Your task to perform on an android device: Clear the cart on ebay. Search for "dell xps" on ebay, select the first entry, add it to the cart, then select checkout. Image 0: 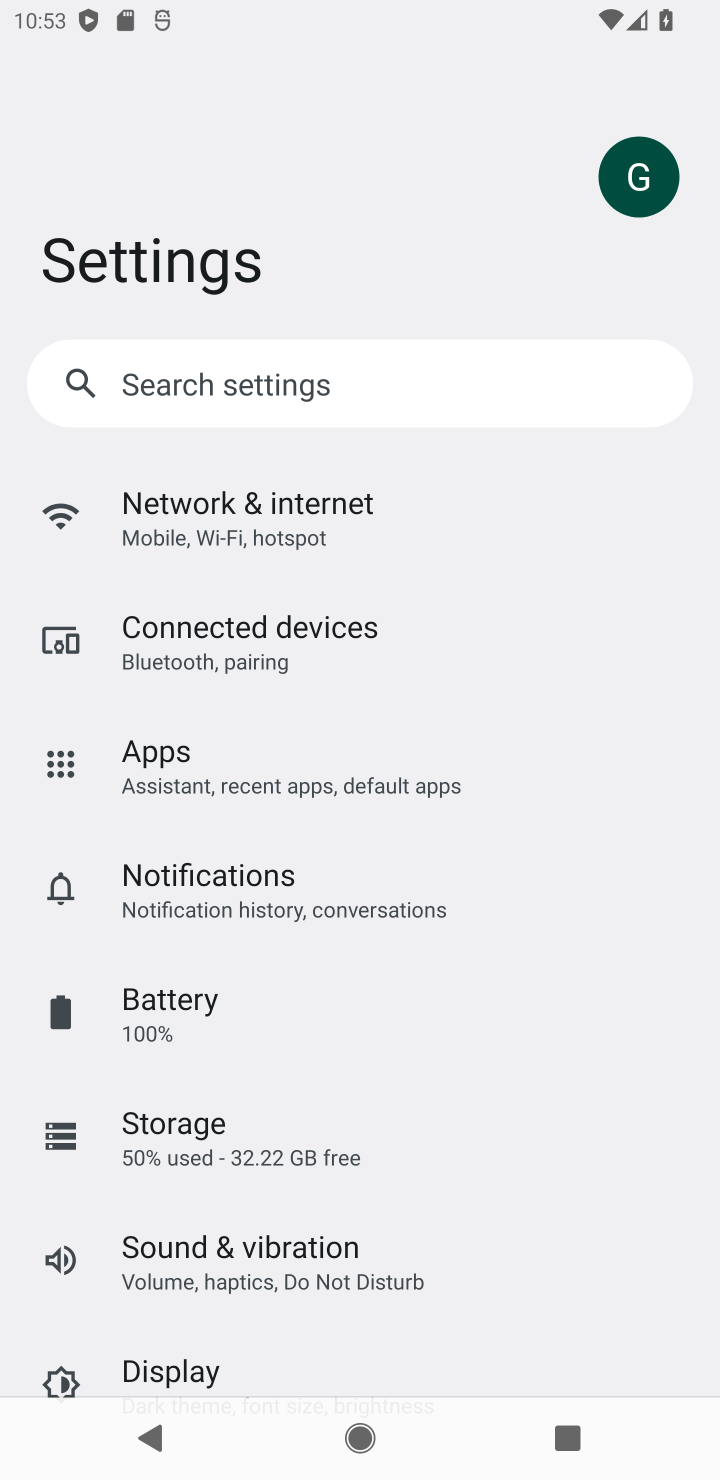
Step 0: press home button
Your task to perform on an android device: Clear the cart on ebay. Search for "dell xps" on ebay, select the first entry, add it to the cart, then select checkout. Image 1: 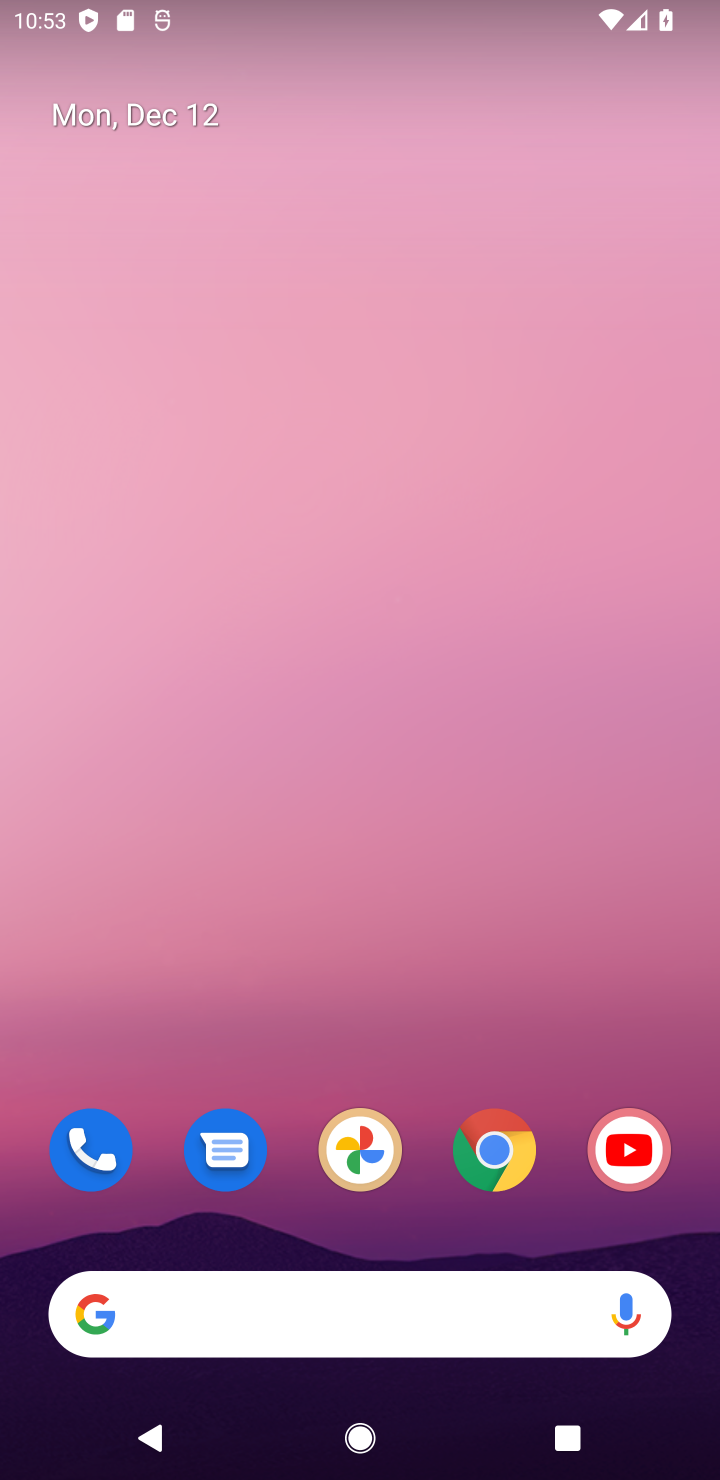
Step 1: click (485, 1145)
Your task to perform on an android device: Clear the cart on ebay. Search for "dell xps" on ebay, select the first entry, add it to the cart, then select checkout. Image 2: 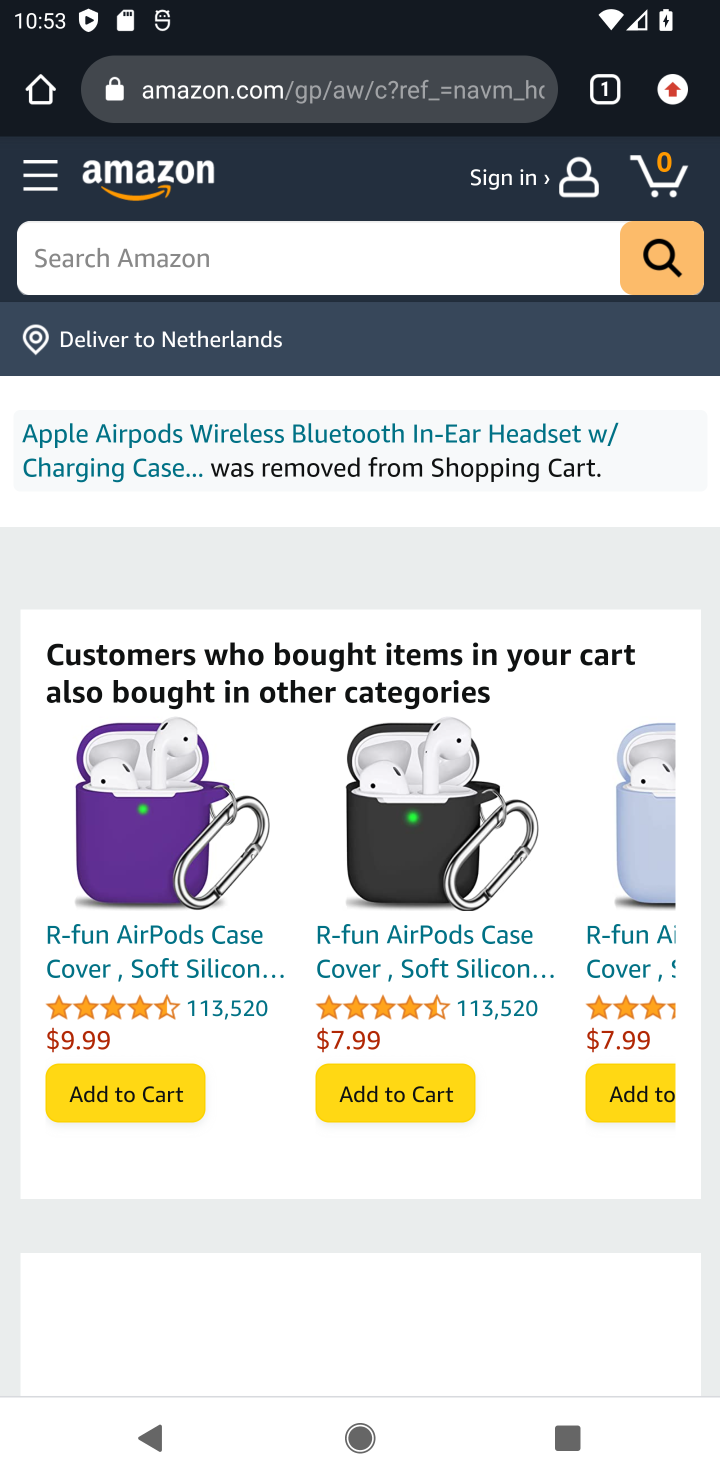
Step 2: click (260, 97)
Your task to perform on an android device: Clear the cart on ebay. Search for "dell xps" on ebay, select the first entry, add it to the cart, then select checkout. Image 3: 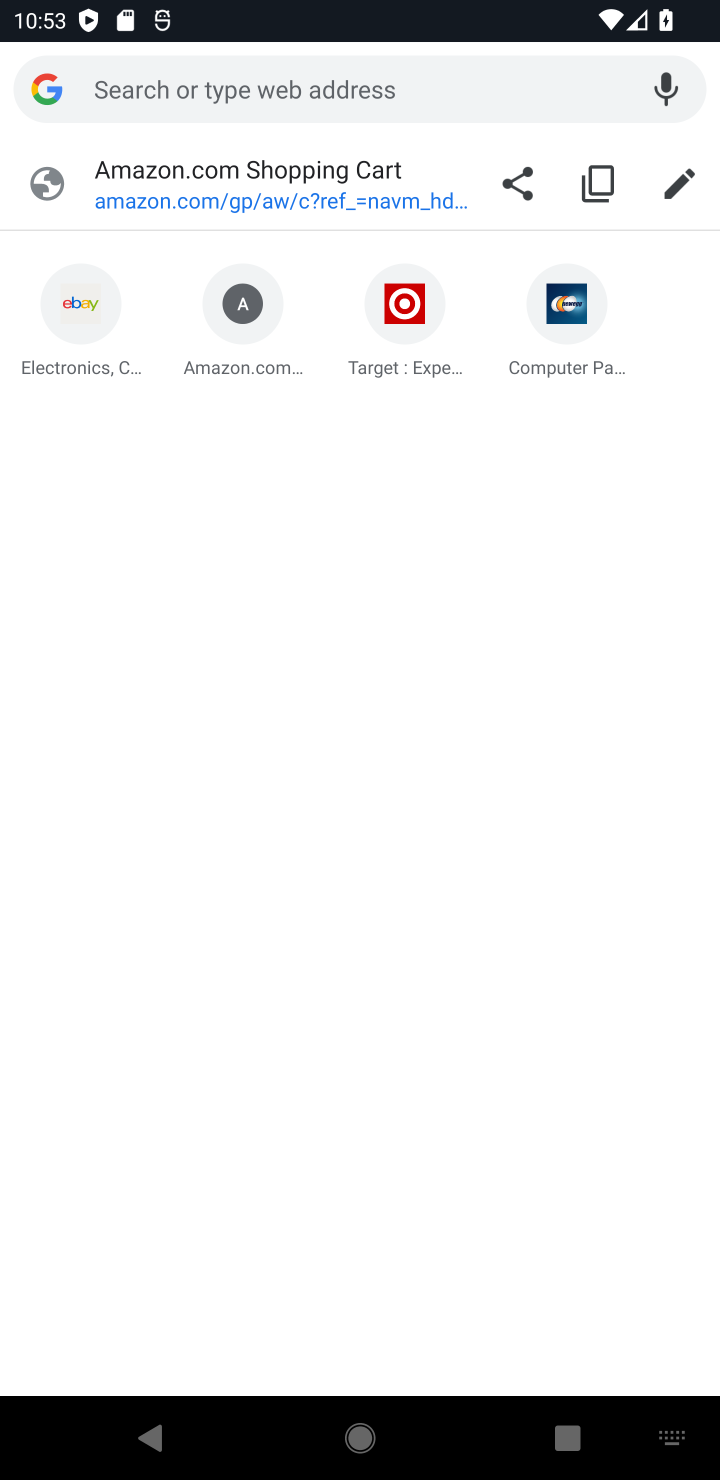
Step 3: click (77, 304)
Your task to perform on an android device: Clear the cart on ebay. Search for "dell xps" on ebay, select the first entry, add it to the cart, then select checkout. Image 4: 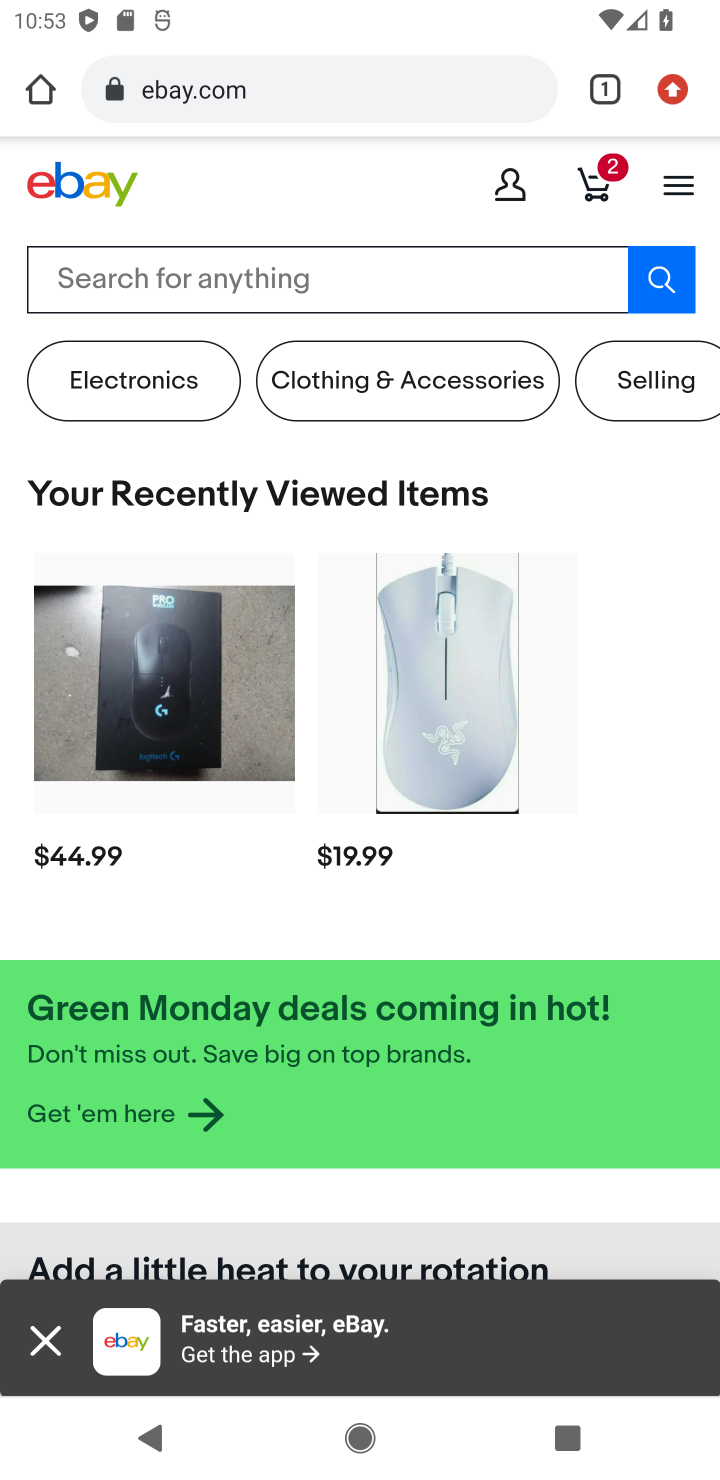
Step 4: click (606, 175)
Your task to perform on an android device: Clear the cart on ebay. Search for "dell xps" on ebay, select the first entry, add it to the cart, then select checkout. Image 5: 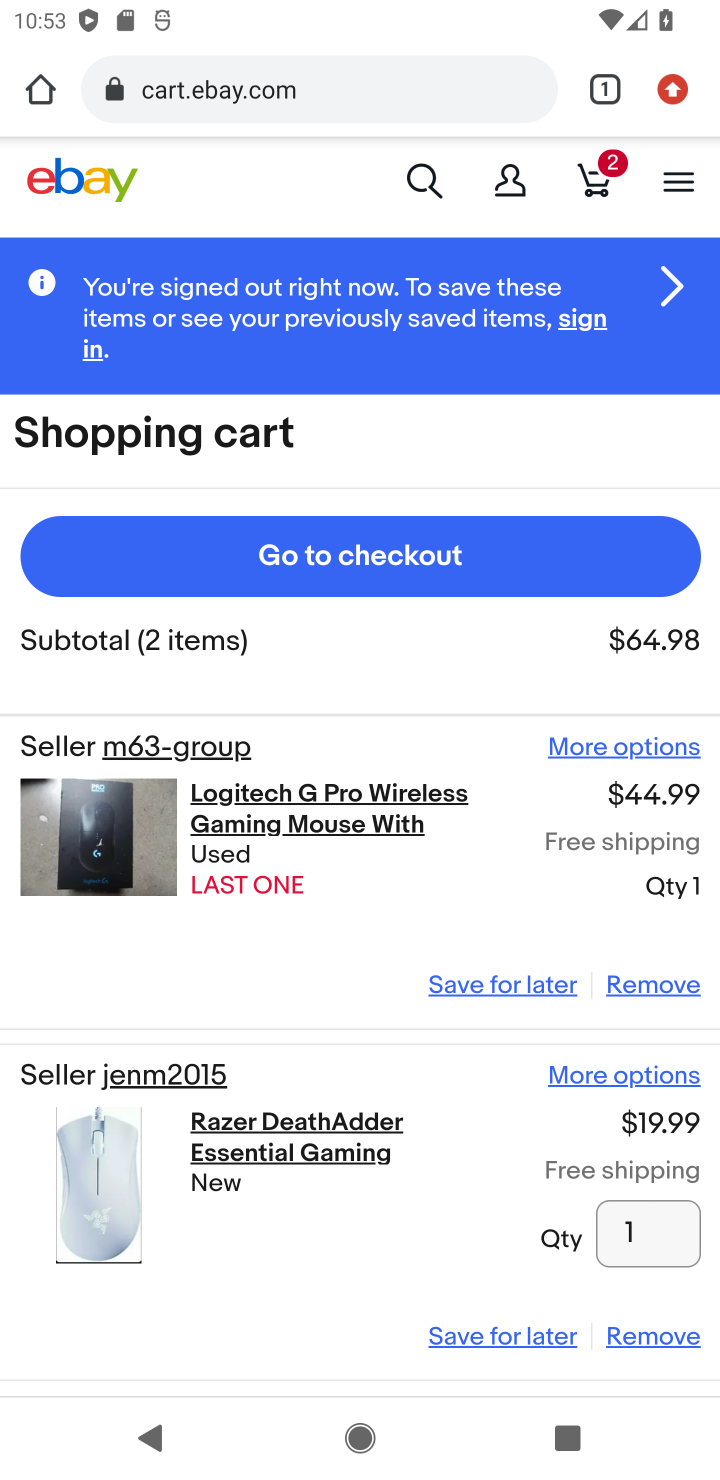
Step 5: click (624, 984)
Your task to perform on an android device: Clear the cart on ebay. Search for "dell xps" on ebay, select the first entry, add it to the cart, then select checkout. Image 6: 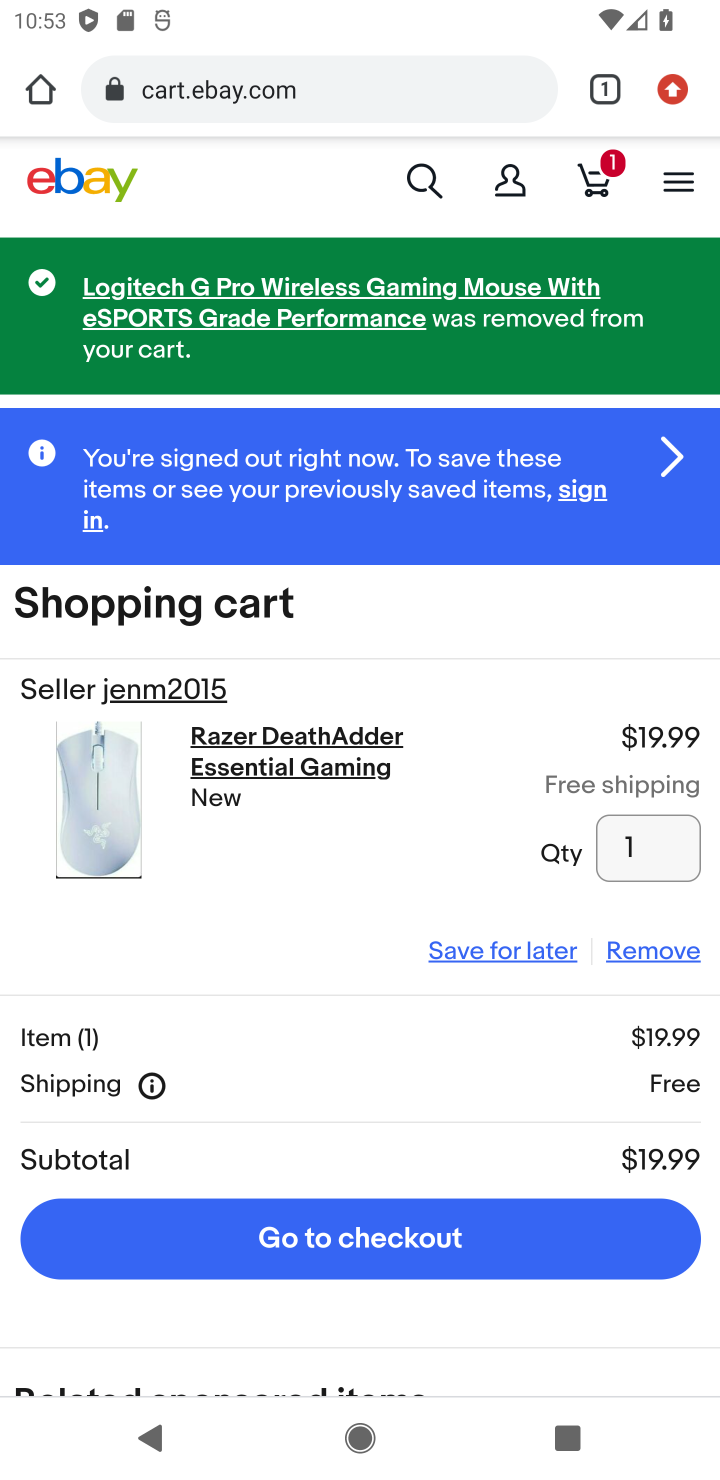
Step 6: click (662, 956)
Your task to perform on an android device: Clear the cart on ebay. Search for "dell xps" on ebay, select the first entry, add it to the cart, then select checkout. Image 7: 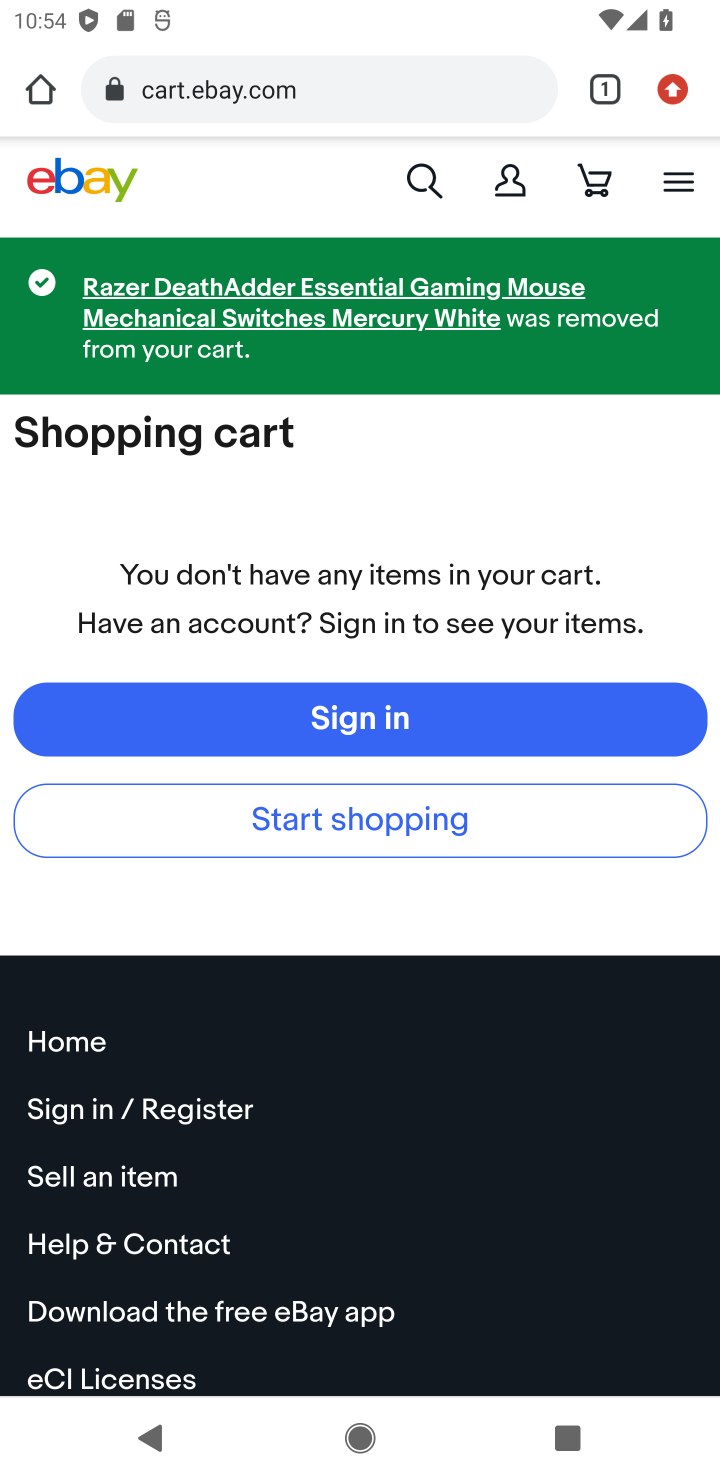
Step 7: click (429, 181)
Your task to perform on an android device: Clear the cart on ebay. Search for "dell xps" on ebay, select the first entry, add it to the cart, then select checkout. Image 8: 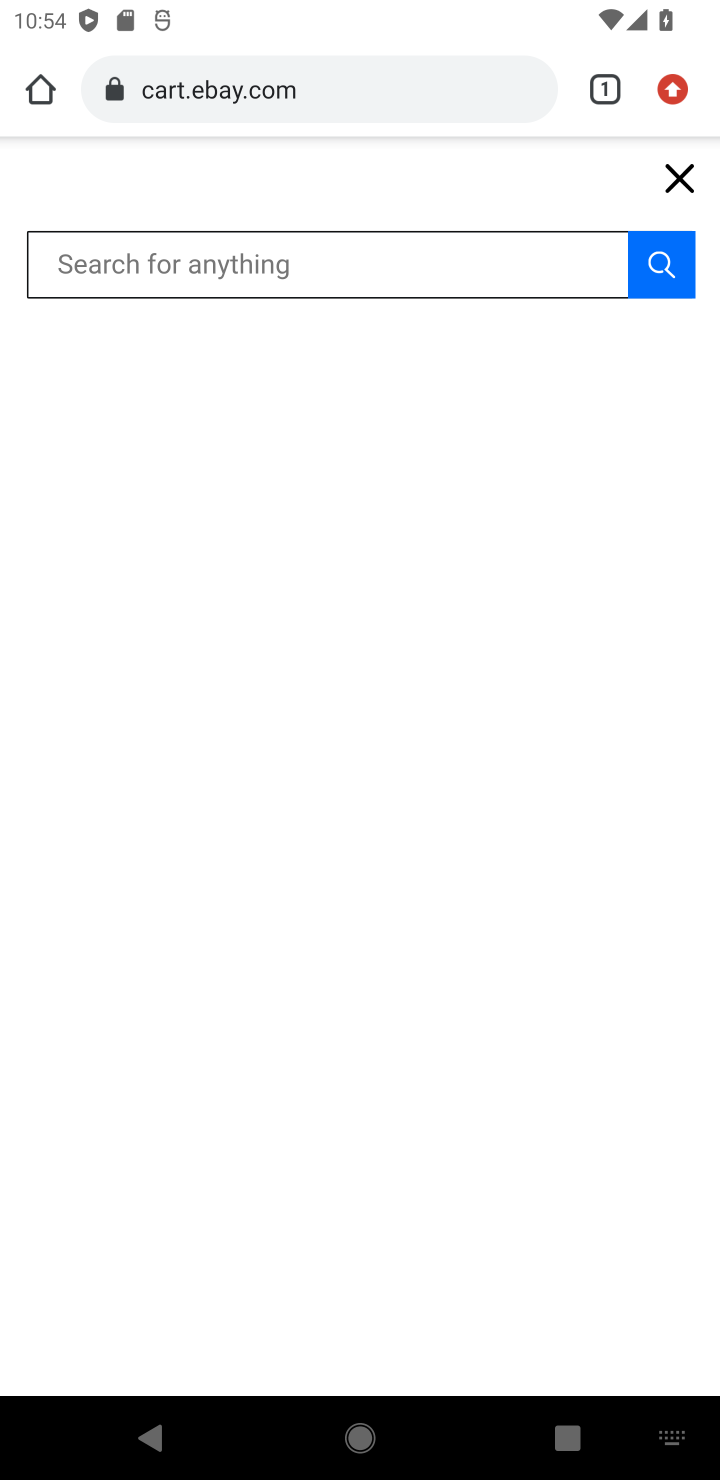
Step 8: type "dell xps"
Your task to perform on an android device: Clear the cart on ebay. Search for "dell xps" on ebay, select the first entry, add it to the cart, then select checkout. Image 9: 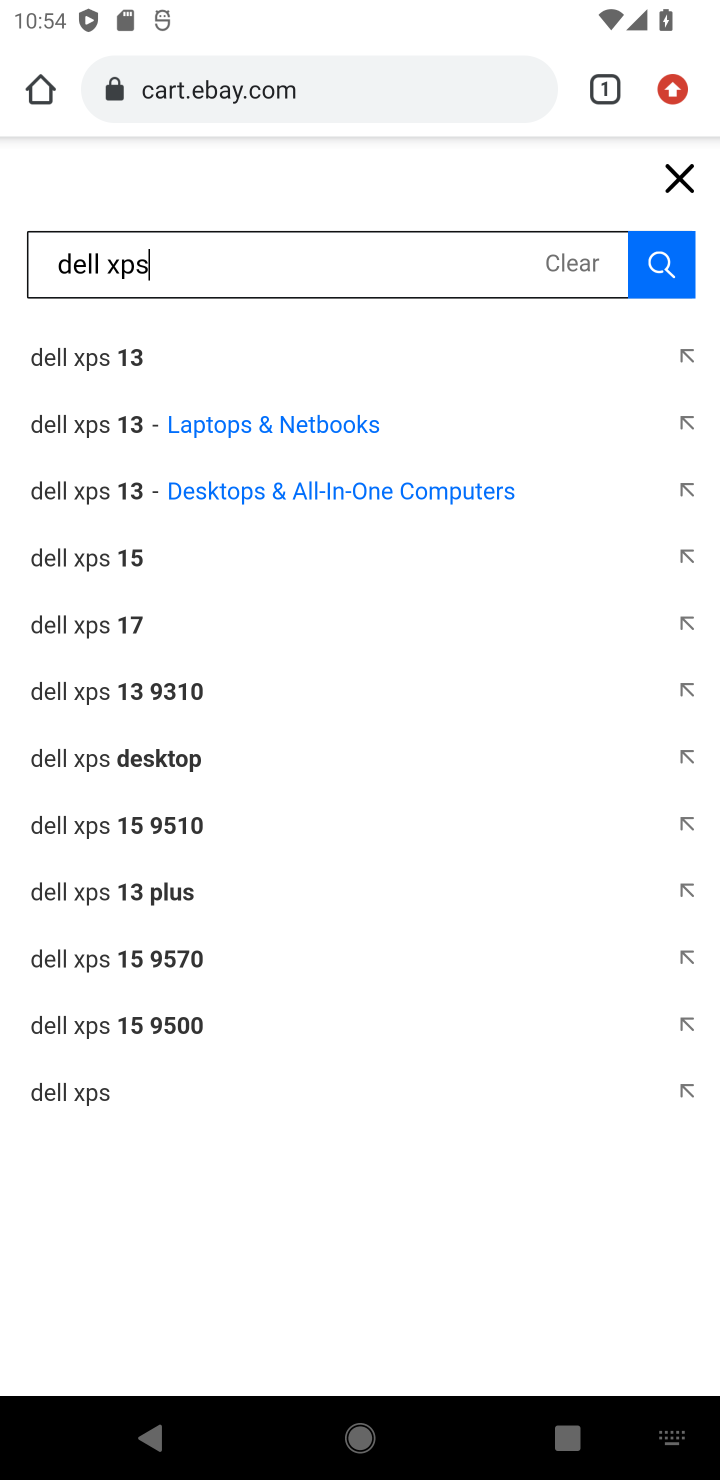
Step 9: click (59, 1098)
Your task to perform on an android device: Clear the cart on ebay. Search for "dell xps" on ebay, select the first entry, add it to the cart, then select checkout. Image 10: 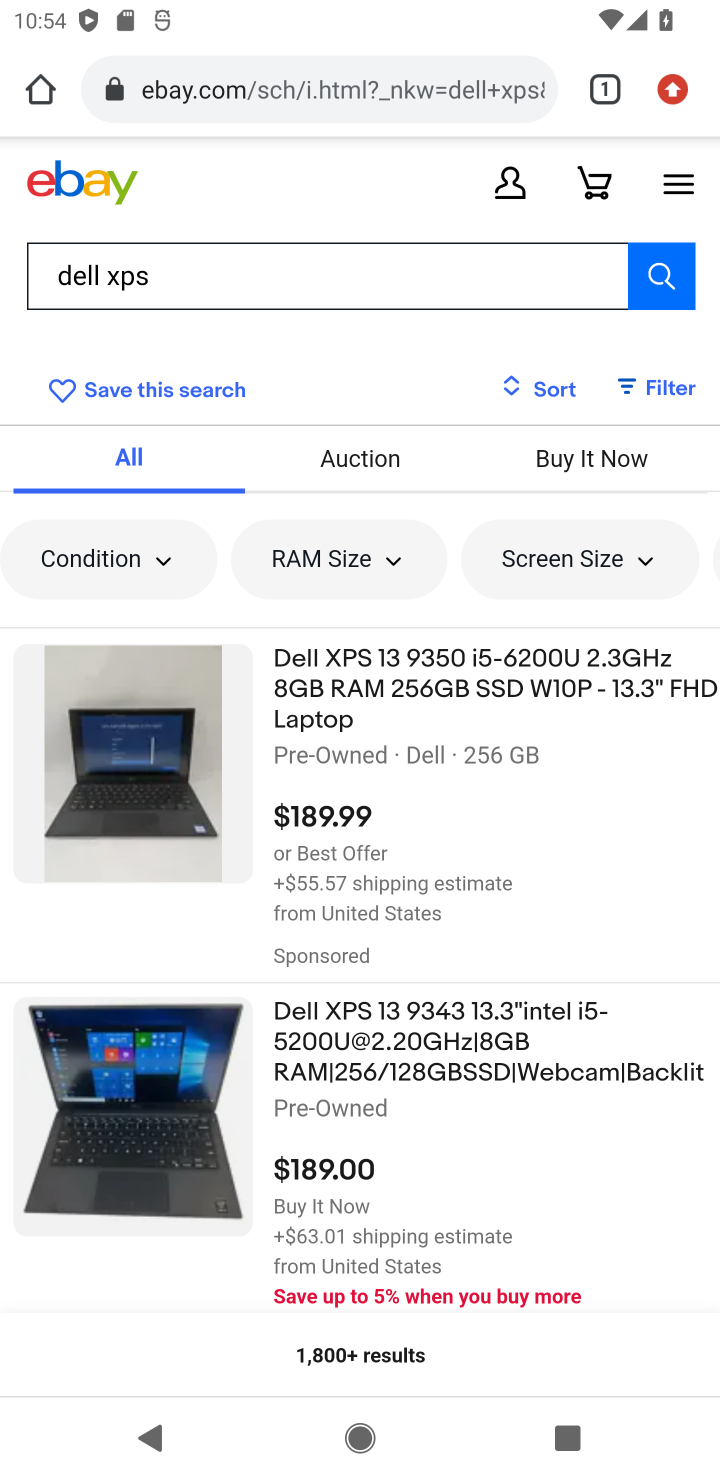
Step 10: click (357, 702)
Your task to perform on an android device: Clear the cart on ebay. Search for "dell xps" on ebay, select the first entry, add it to the cart, then select checkout. Image 11: 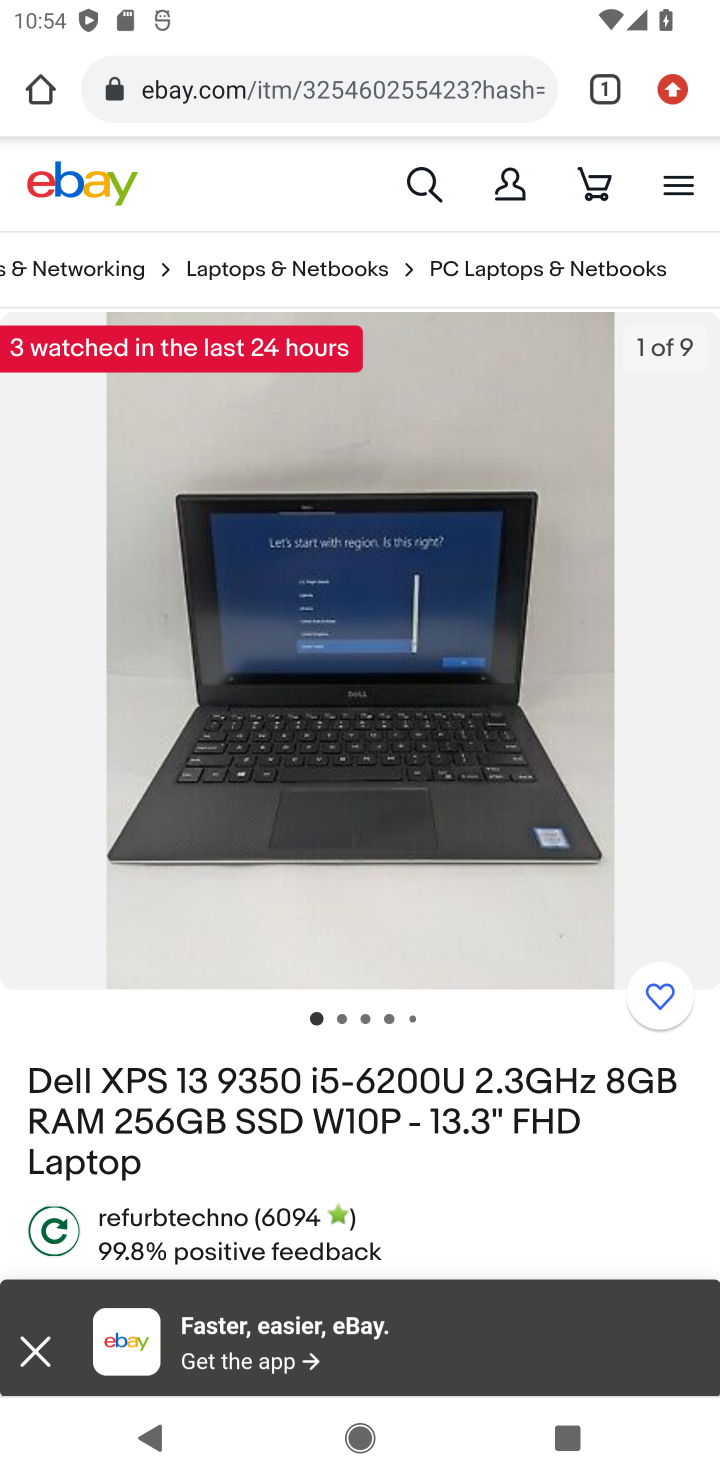
Step 11: drag from (344, 977) to (344, 583)
Your task to perform on an android device: Clear the cart on ebay. Search for "dell xps" on ebay, select the first entry, add it to the cart, then select checkout. Image 12: 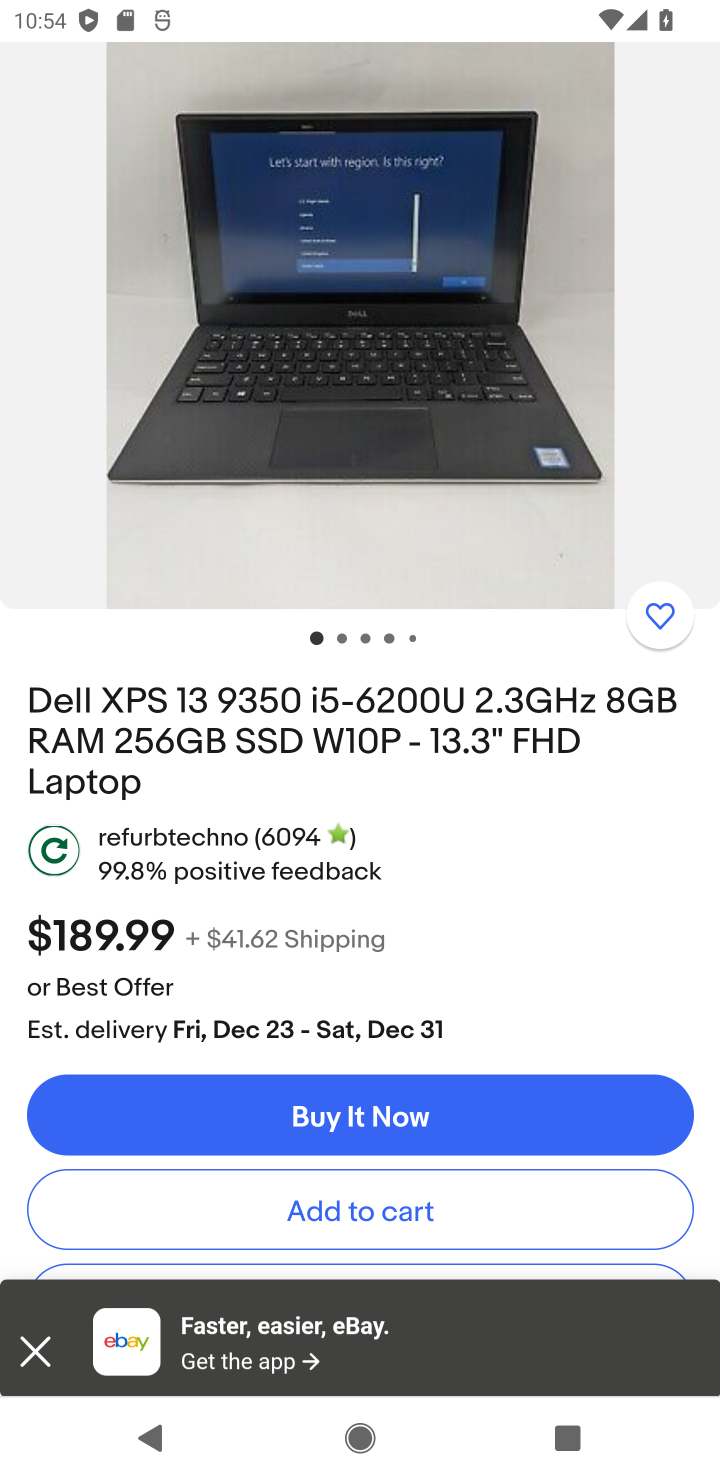
Step 12: click (323, 1206)
Your task to perform on an android device: Clear the cart on ebay. Search for "dell xps" on ebay, select the first entry, add it to the cart, then select checkout. Image 13: 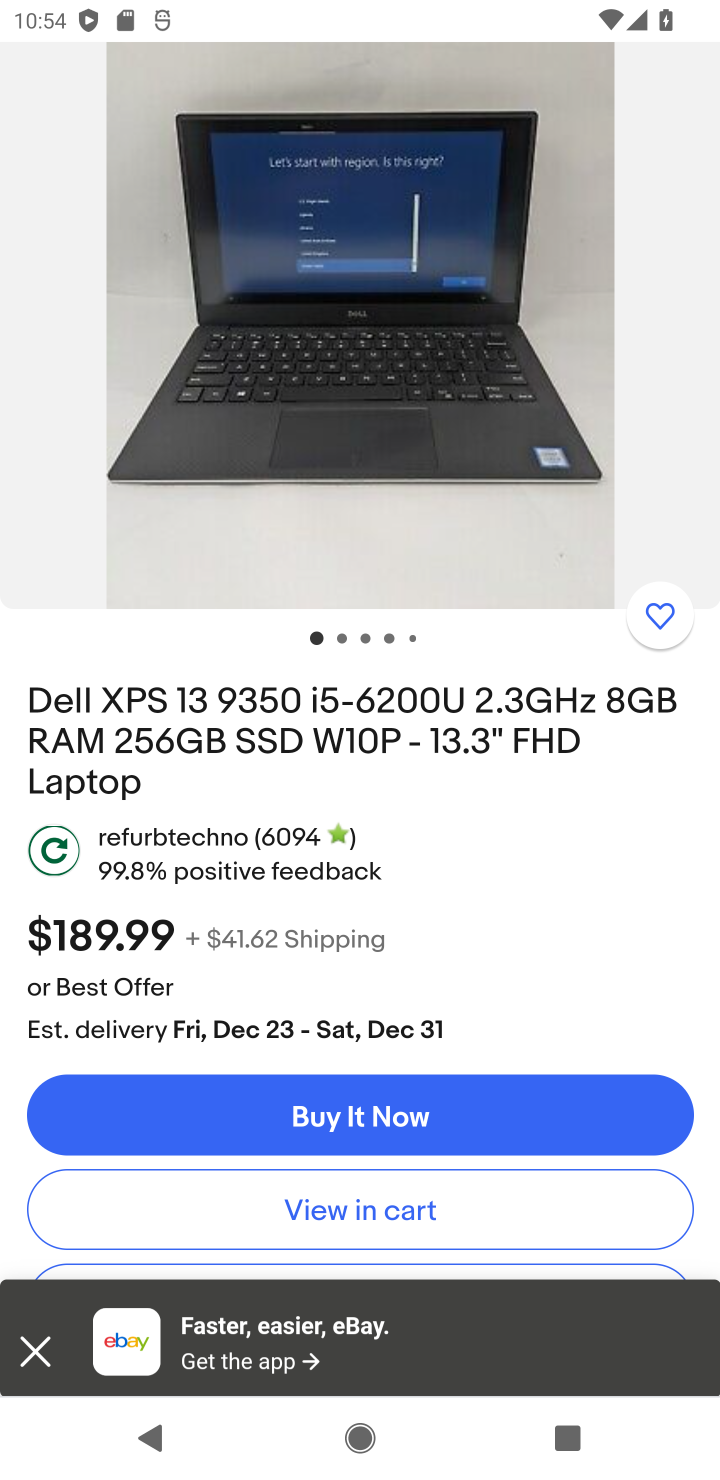
Step 13: click (323, 1206)
Your task to perform on an android device: Clear the cart on ebay. Search for "dell xps" on ebay, select the first entry, add it to the cart, then select checkout. Image 14: 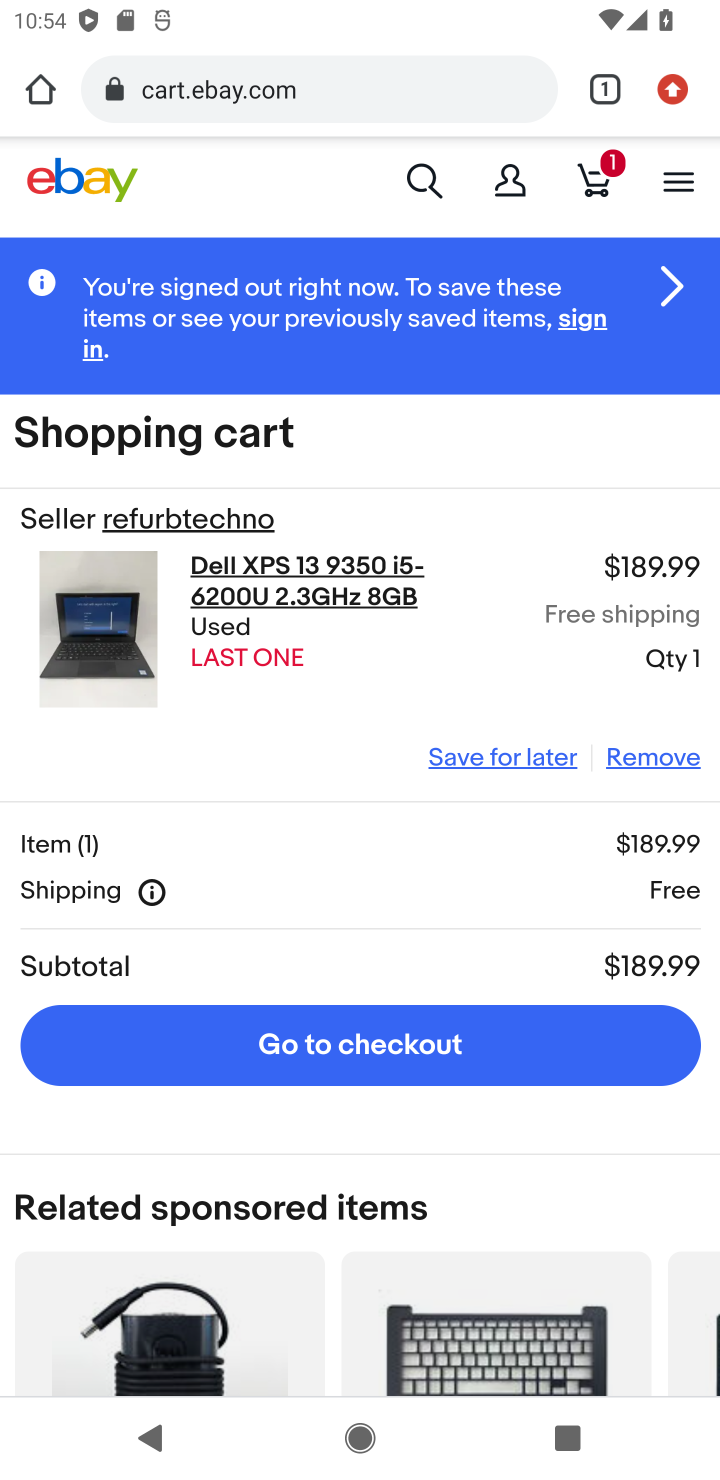
Step 14: click (350, 1051)
Your task to perform on an android device: Clear the cart on ebay. Search for "dell xps" on ebay, select the first entry, add it to the cart, then select checkout. Image 15: 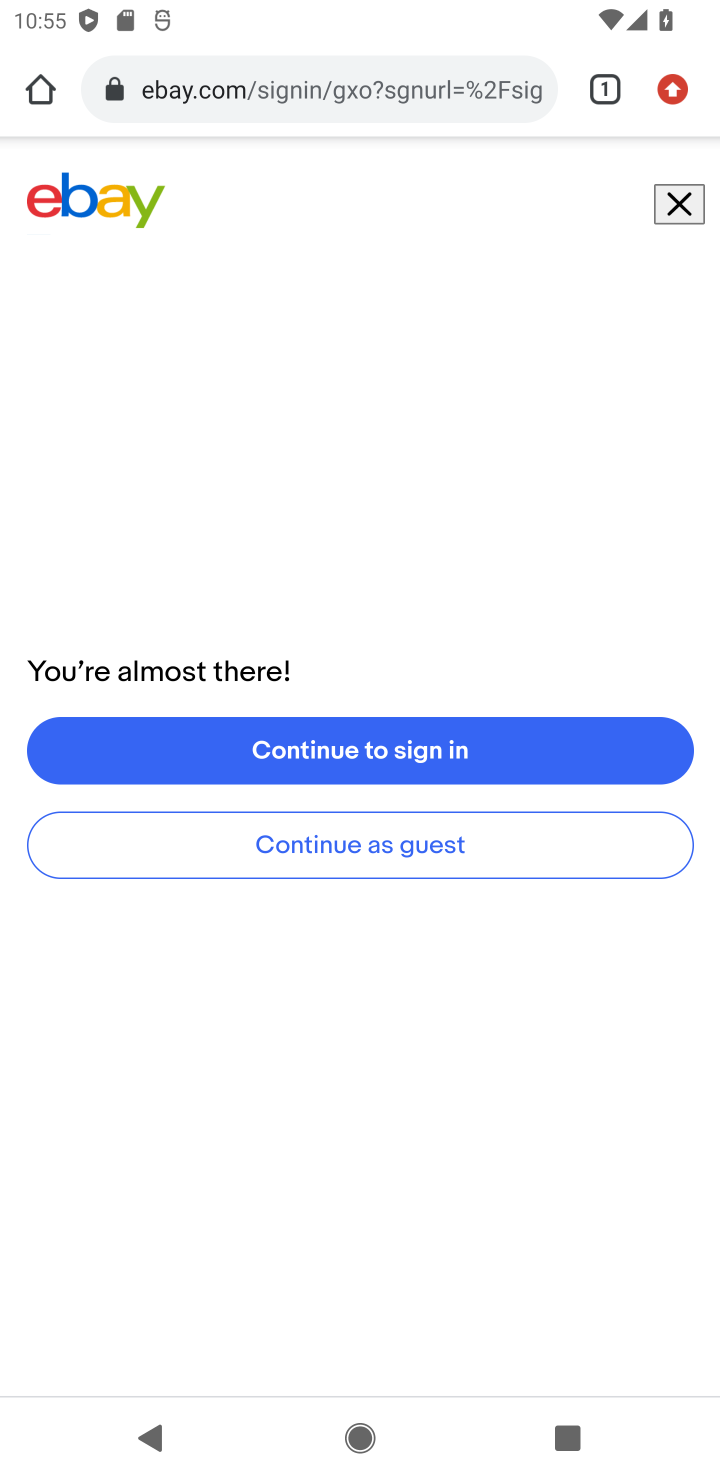
Step 15: task complete